Your task to perform on an android device: Set the phone to "Do not disturb". Image 0: 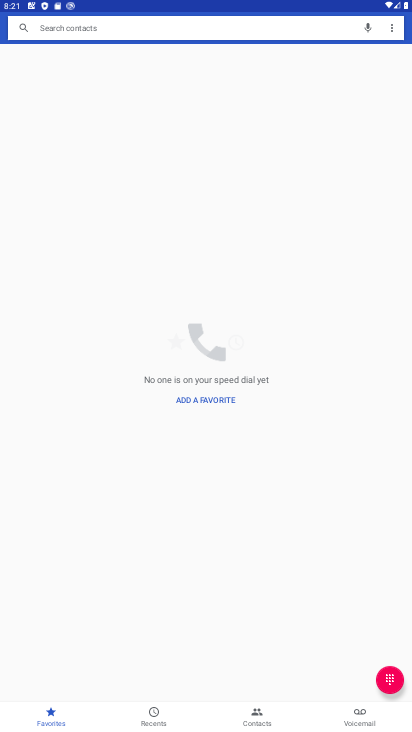
Step 0: drag from (165, 4) to (186, 554)
Your task to perform on an android device: Set the phone to "Do not disturb". Image 1: 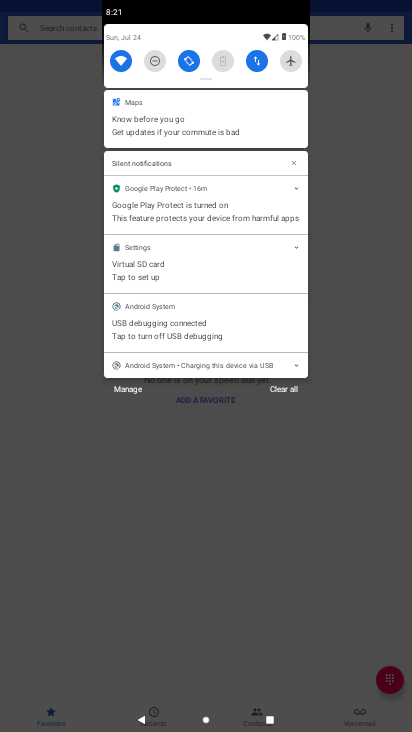
Step 1: drag from (193, 73) to (335, 403)
Your task to perform on an android device: Set the phone to "Do not disturb". Image 2: 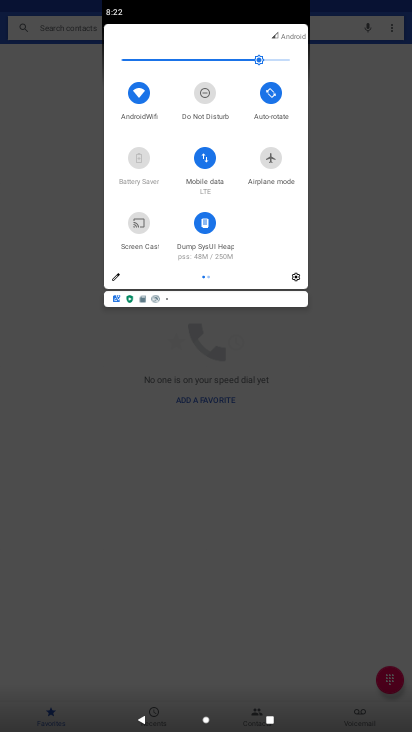
Step 2: click (206, 102)
Your task to perform on an android device: Set the phone to "Do not disturb". Image 3: 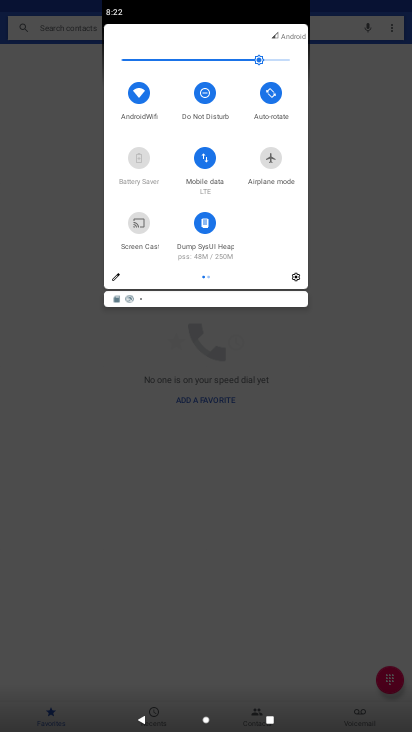
Step 3: task complete